Your task to perform on an android device: Go to battery settings Image 0: 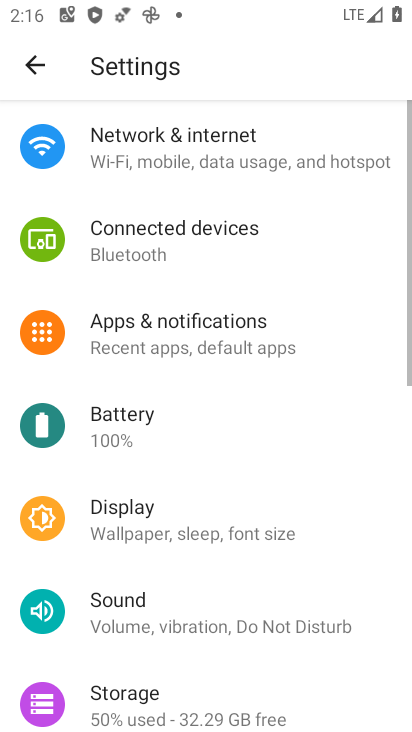
Step 0: click (127, 423)
Your task to perform on an android device: Go to battery settings Image 1: 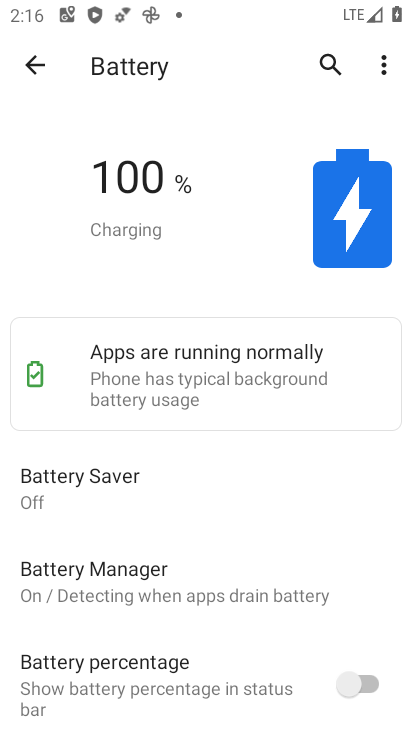
Step 1: task complete